Your task to perform on an android device: Open Maps and search for coffee Image 0: 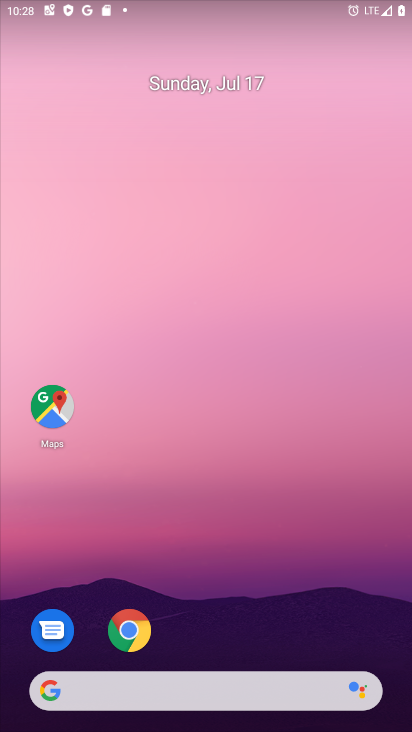
Step 0: drag from (210, 647) to (202, 32)
Your task to perform on an android device: Open Maps and search for coffee Image 1: 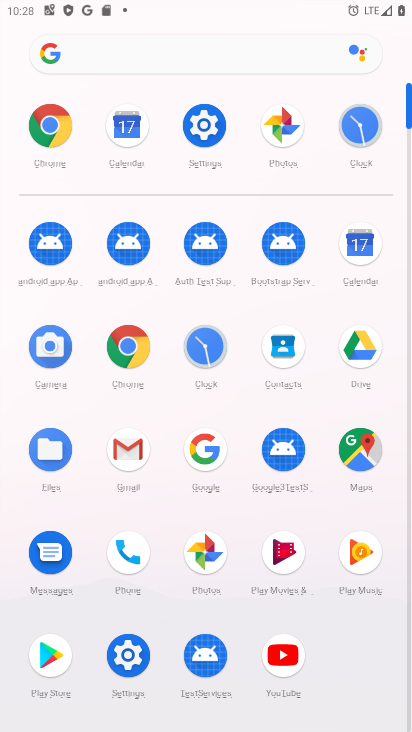
Step 1: click (367, 447)
Your task to perform on an android device: Open Maps and search for coffee Image 2: 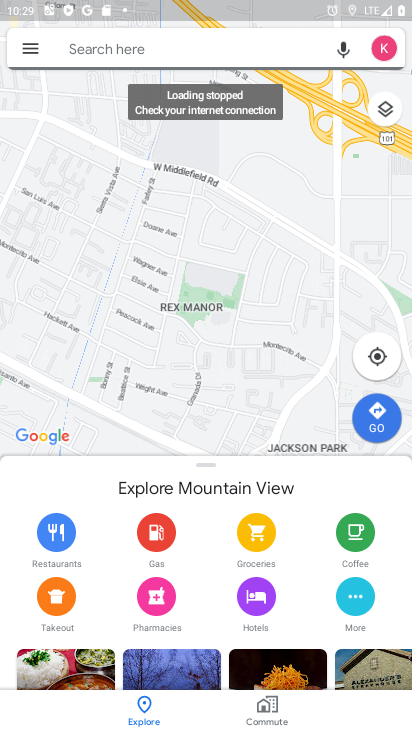
Step 2: click (126, 44)
Your task to perform on an android device: Open Maps and search for coffee Image 3: 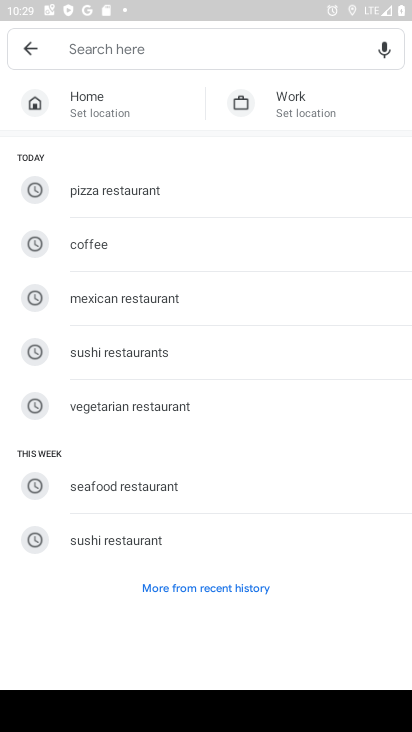
Step 3: click (104, 246)
Your task to perform on an android device: Open Maps and search for coffee Image 4: 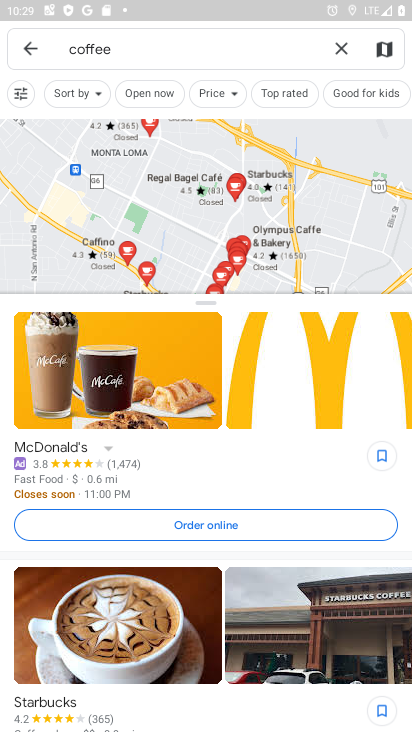
Step 4: task complete